Your task to perform on an android device: Show the shopping cart on target. Search for amazon basics triple a on target, select the first entry, add it to the cart, then select checkout. Image 0: 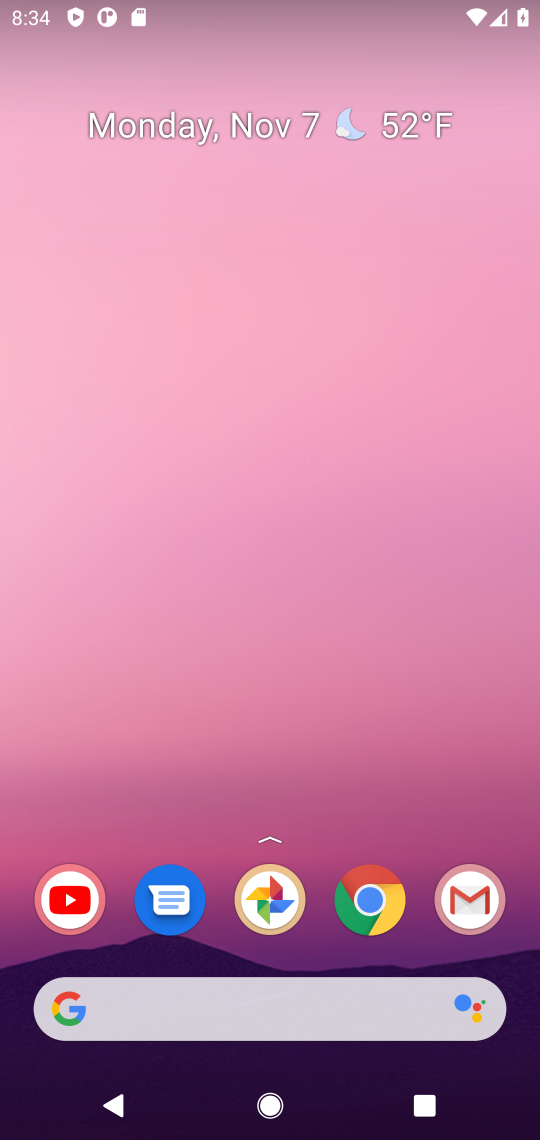
Step 0: click (189, 1017)
Your task to perform on an android device: Show the shopping cart on target. Search for amazon basics triple a on target, select the first entry, add it to the cart, then select checkout. Image 1: 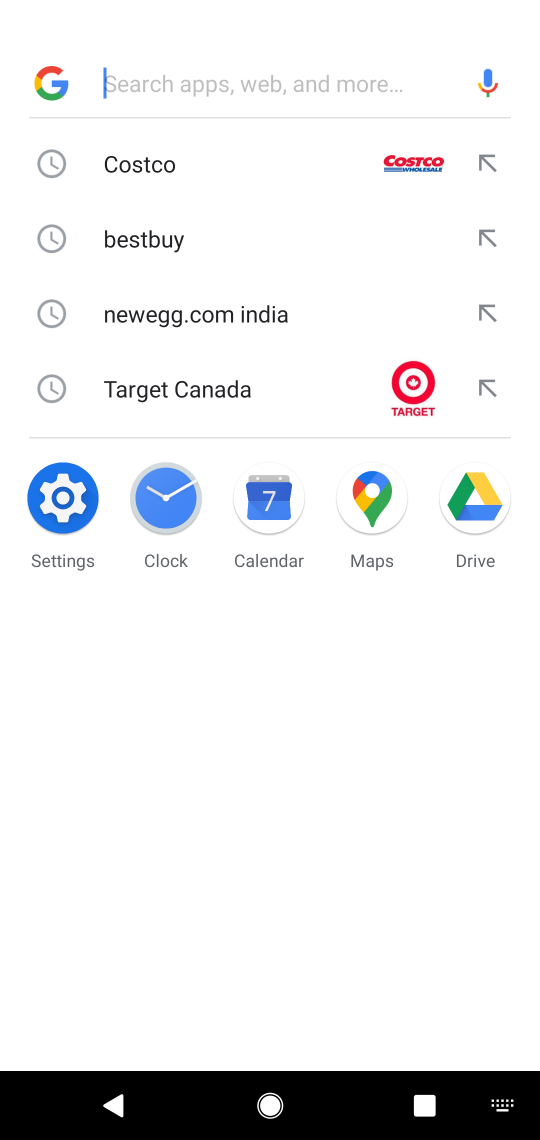
Step 1: click (270, 411)
Your task to perform on an android device: Show the shopping cart on target. Search for amazon basics triple a on target, select the first entry, add it to the cart, then select checkout. Image 2: 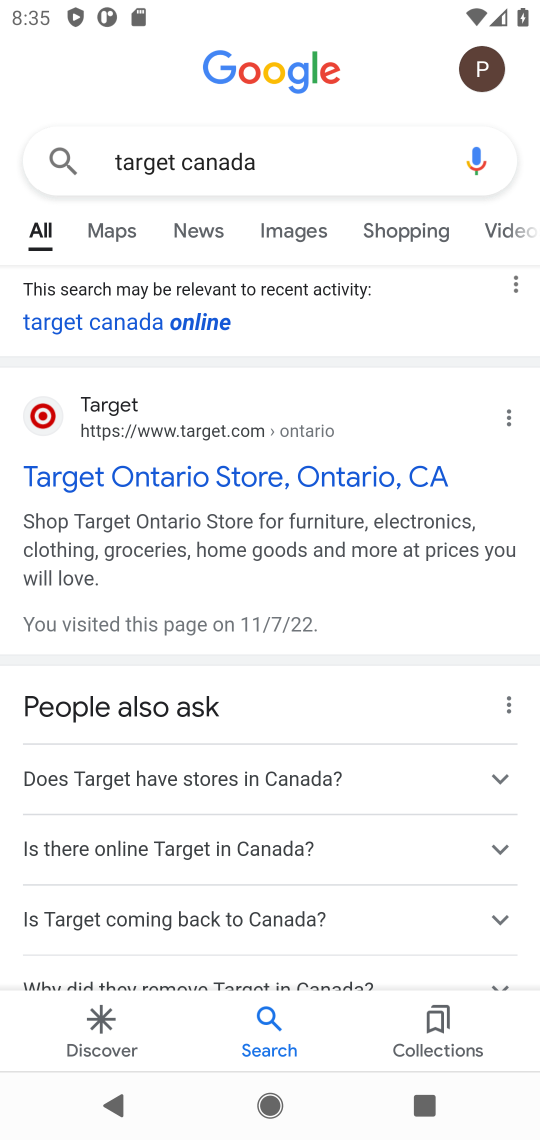
Step 2: click (227, 475)
Your task to perform on an android device: Show the shopping cart on target. Search for amazon basics triple a on target, select the first entry, add it to the cart, then select checkout. Image 3: 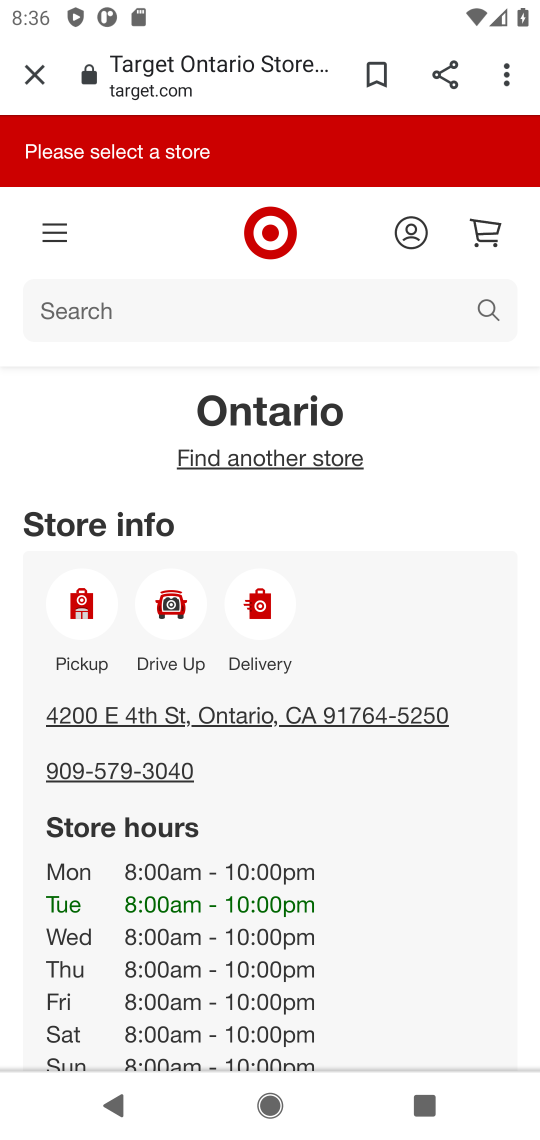
Step 3: task complete